Your task to perform on an android device: toggle data saver in the chrome app Image 0: 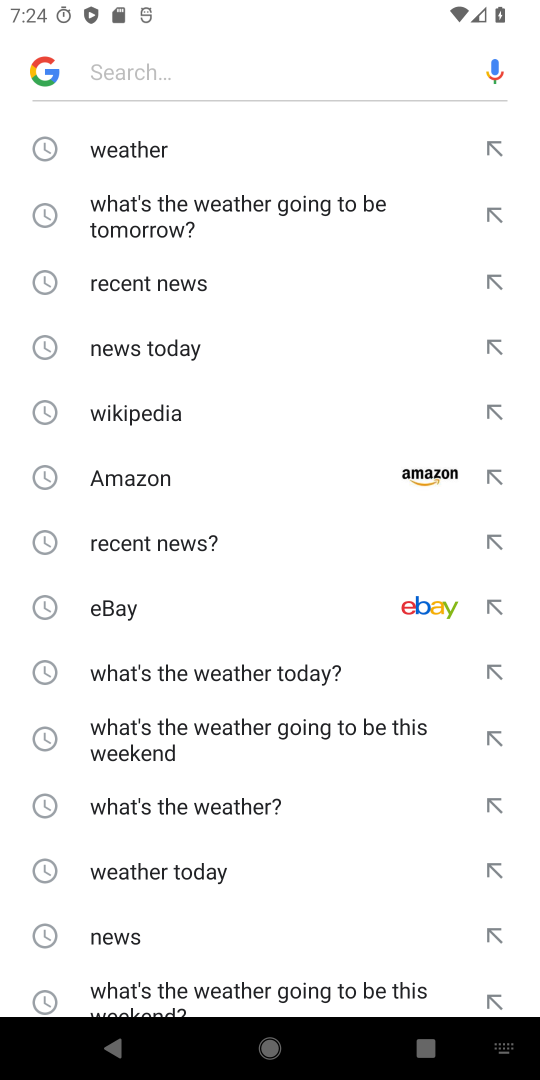
Step 0: press home button
Your task to perform on an android device: toggle data saver in the chrome app Image 1: 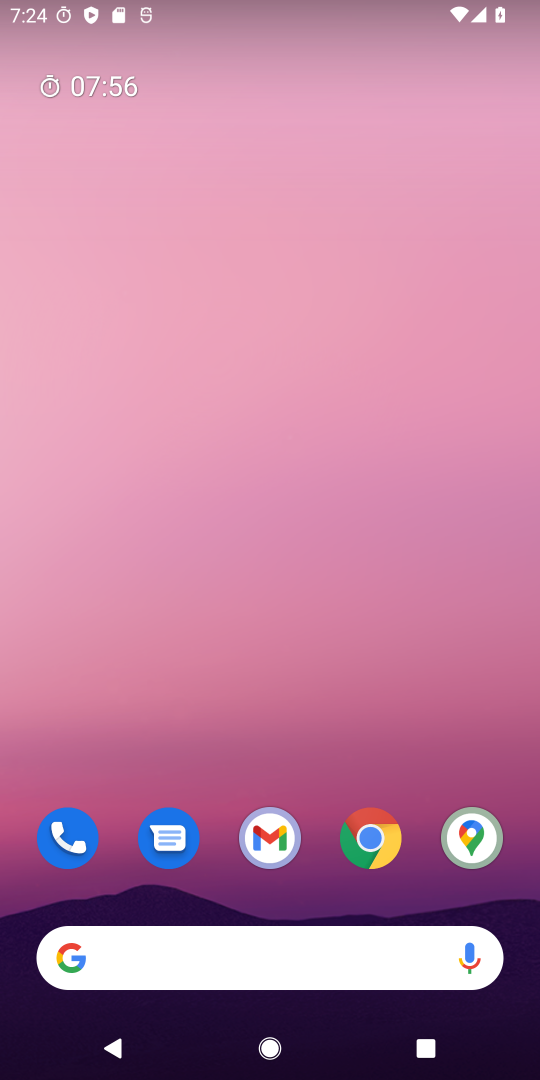
Step 1: drag from (321, 878) to (440, 102)
Your task to perform on an android device: toggle data saver in the chrome app Image 2: 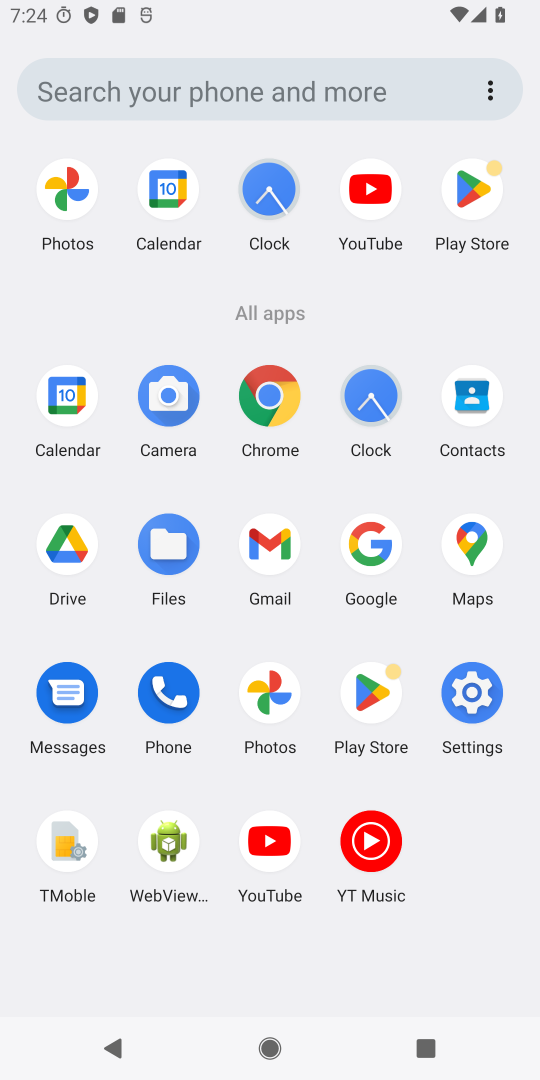
Step 2: click (479, 691)
Your task to perform on an android device: toggle data saver in the chrome app Image 3: 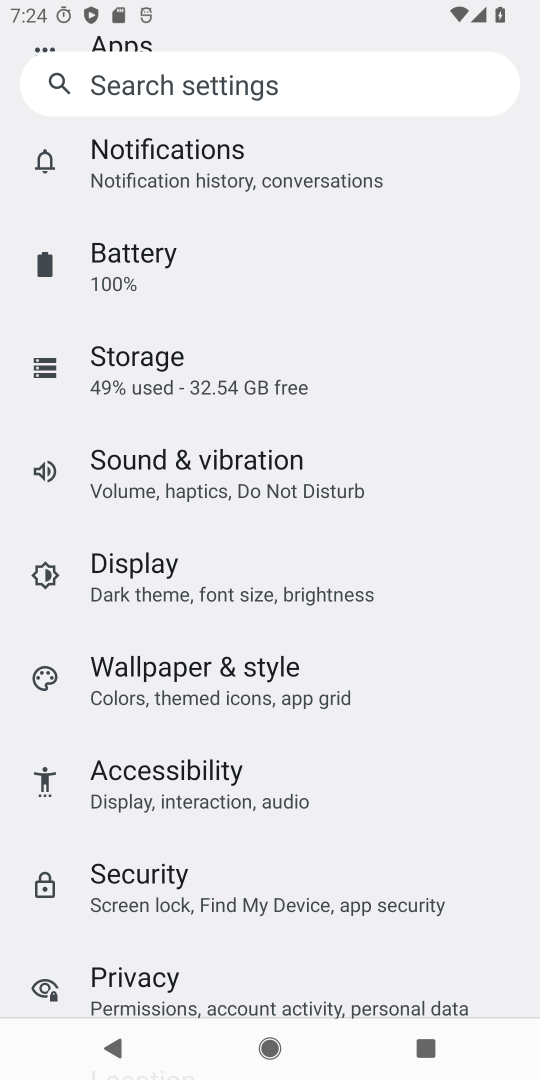
Step 3: press home button
Your task to perform on an android device: toggle data saver in the chrome app Image 4: 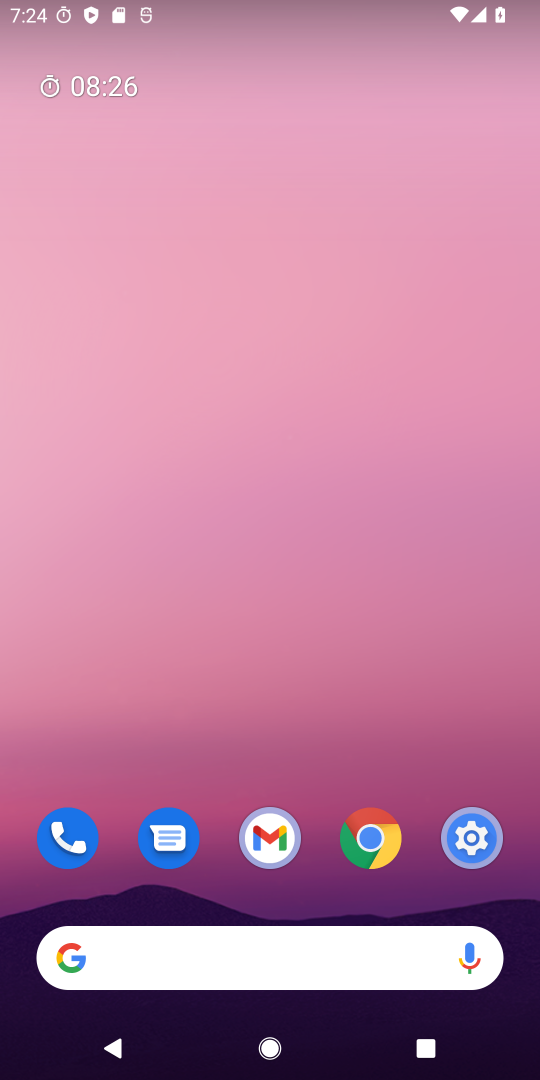
Step 4: drag from (306, 881) to (370, 197)
Your task to perform on an android device: toggle data saver in the chrome app Image 5: 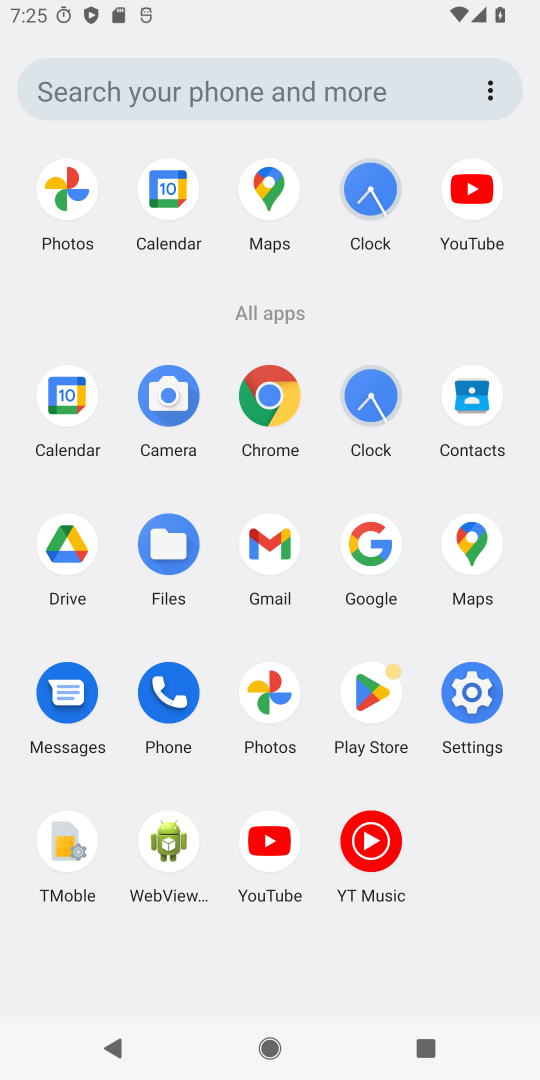
Step 5: click (271, 398)
Your task to perform on an android device: toggle data saver in the chrome app Image 6: 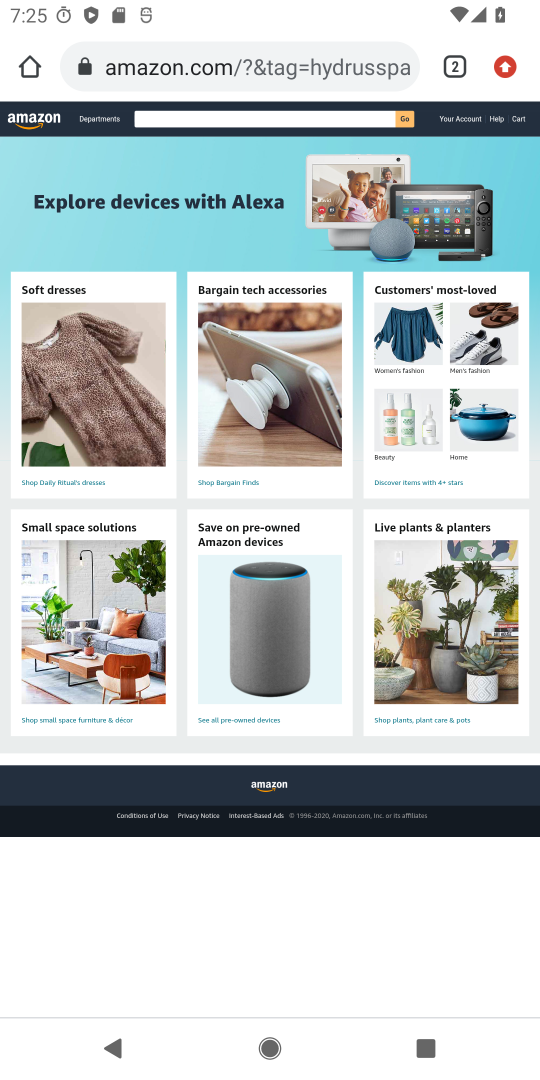
Step 6: drag from (510, 72) to (341, 913)
Your task to perform on an android device: toggle data saver in the chrome app Image 7: 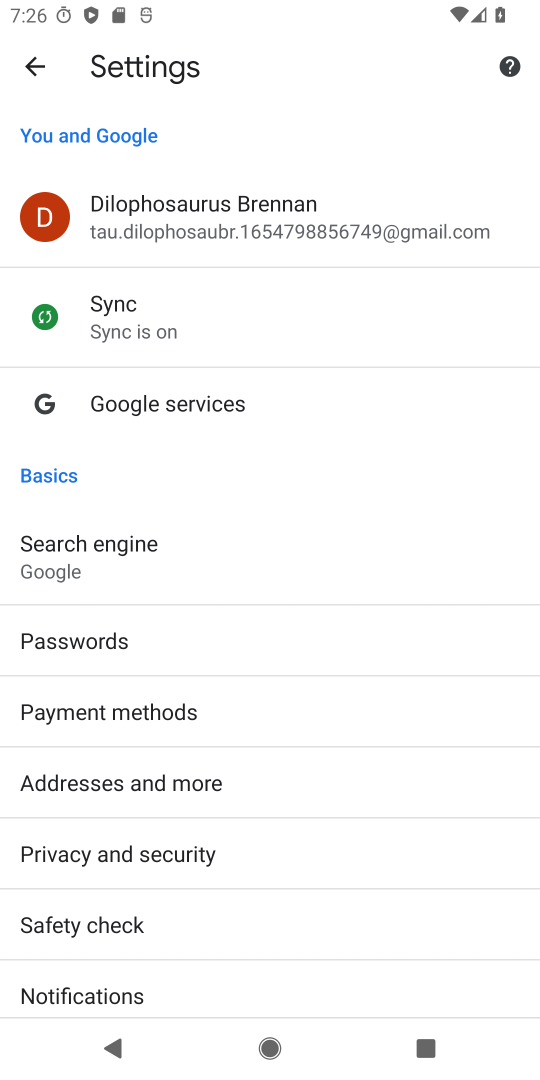
Step 7: drag from (106, 853) to (154, 259)
Your task to perform on an android device: toggle data saver in the chrome app Image 8: 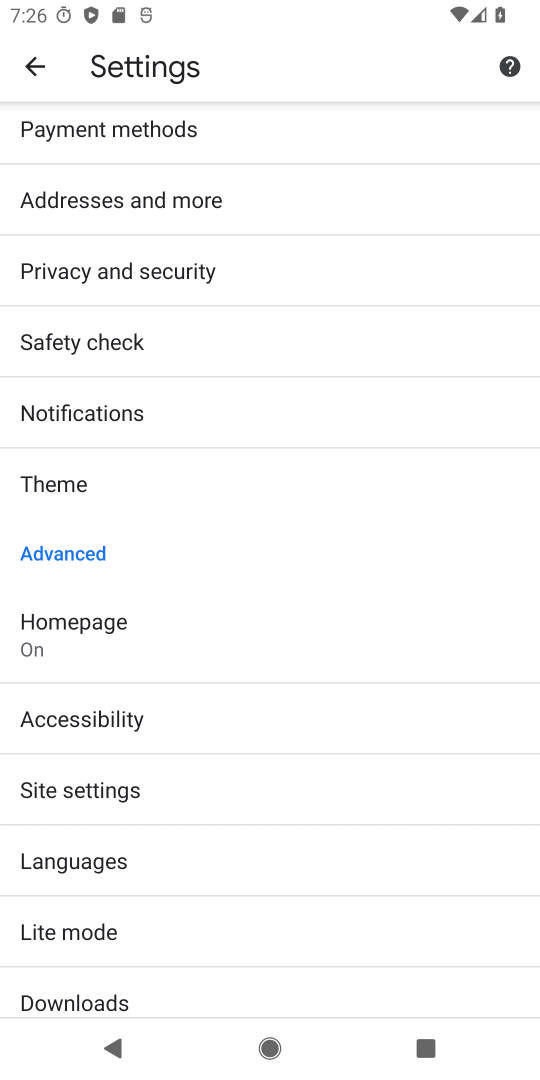
Step 8: click (63, 930)
Your task to perform on an android device: toggle data saver in the chrome app Image 9: 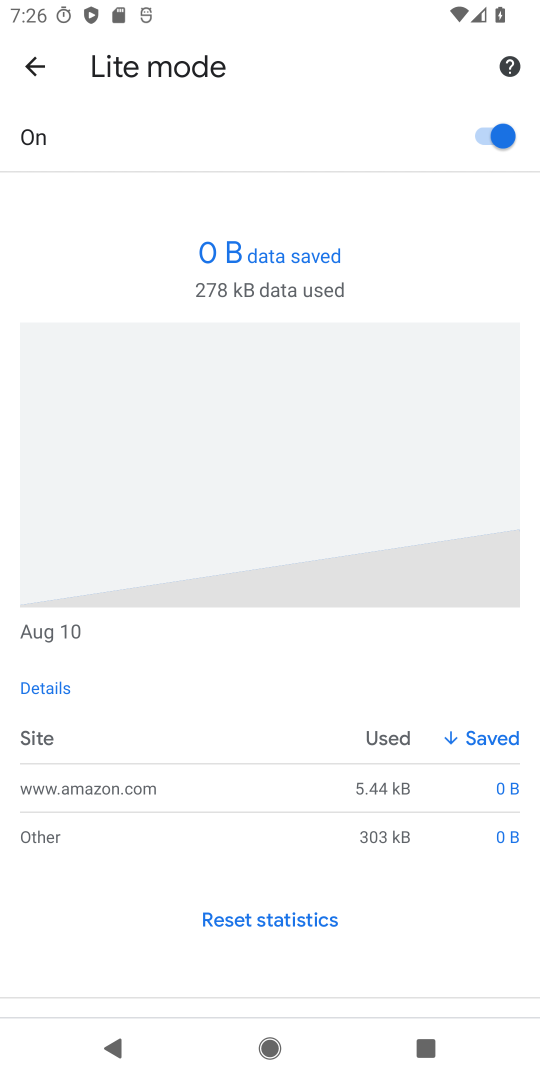
Step 9: task complete